Your task to perform on an android device: open app "Clock" Image 0: 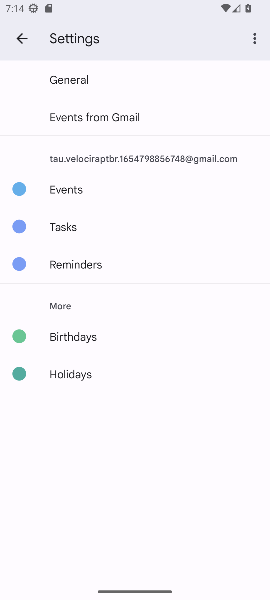
Step 0: press home button
Your task to perform on an android device: open app "Clock" Image 1: 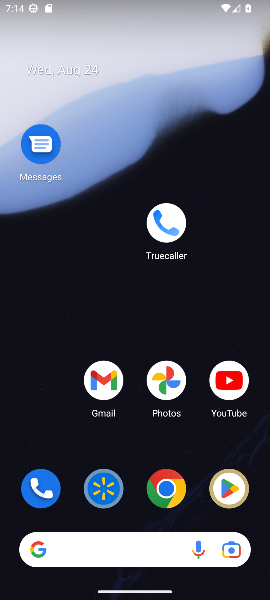
Step 1: click (244, 486)
Your task to perform on an android device: open app "Clock" Image 2: 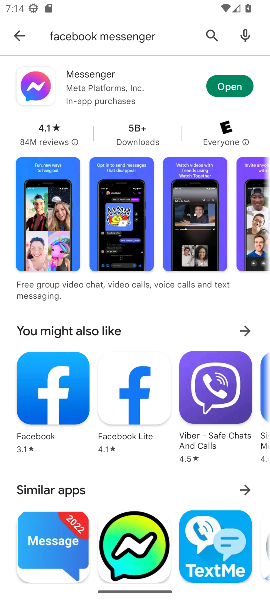
Step 2: click (201, 42)
Your task to perform on an android device: open app "Clock" Image 3: 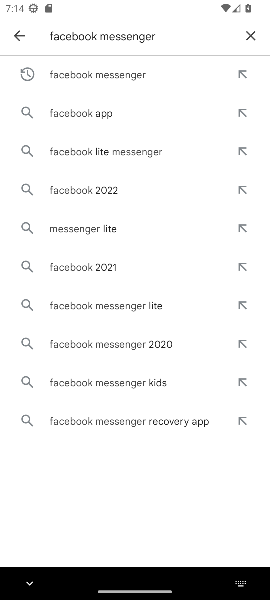
Step 3: click (252, 39)
Your task to perform on an android device: open app "Clock" Image 4: 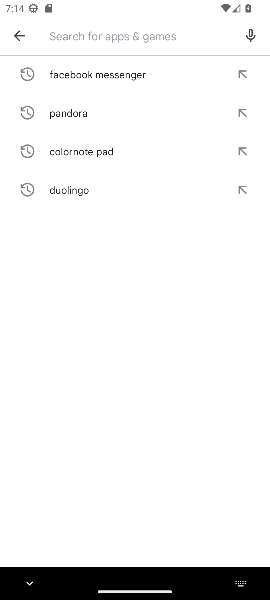
Step 4: type "clock"
Your task to perform on an android device: open app "Clock" Image 5: 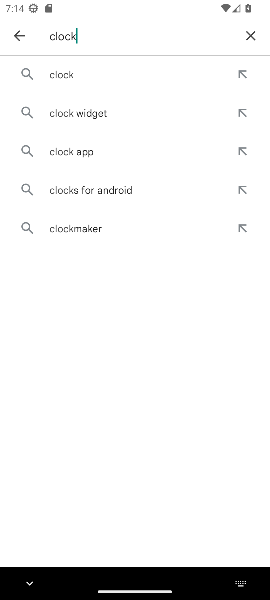
Step 5: click (158, 71)
Your task to perform on an android device: open app "Clock" Image 6: 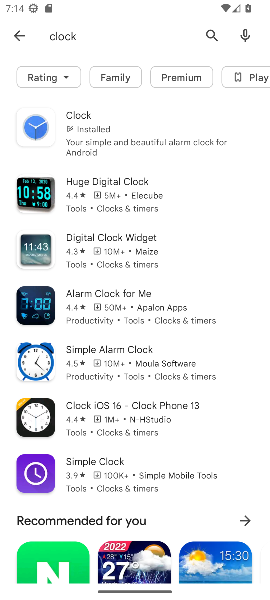
Step 6: click (191, 129)
Your task to perform on an android device: open app "Clock" Image 7: 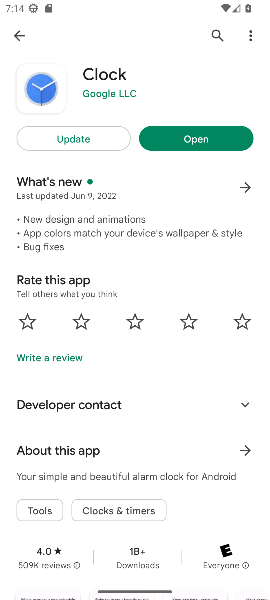
Step 7: click (227, 145)
Your task to perform on an android device: open app "Clock" Image 8: 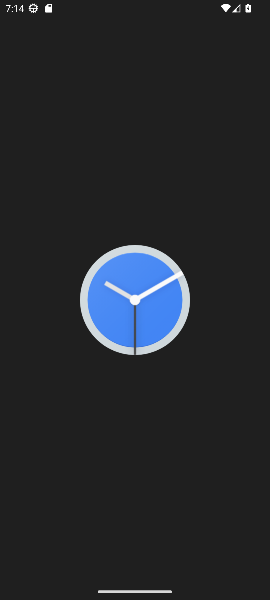
Step 8: task complete